Your task to perform on an android device: turn off sleep mode Image 0: 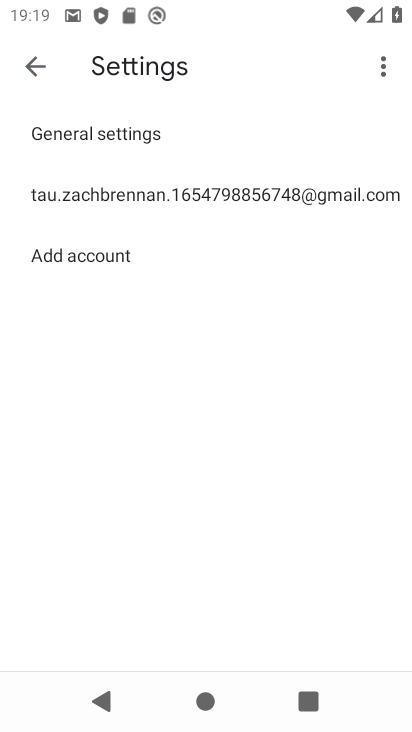
Step 0: press home button
Your task to perform on an android device: turn off sleep mode Image 1: 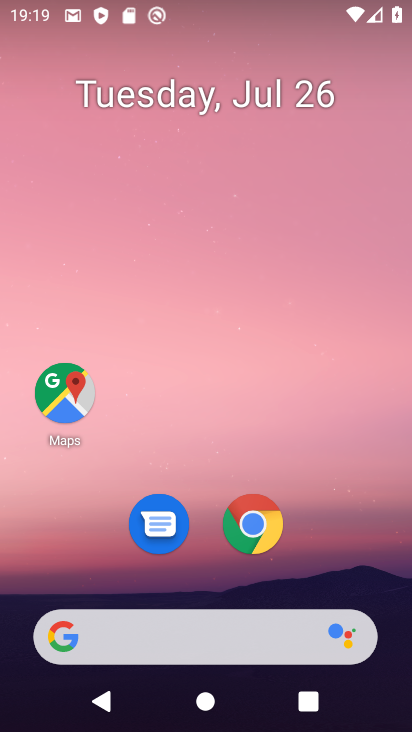
Step 1: drag from (287, 74) to (299, 42)
Your task to perform on an android device: turn off sleep mode Image 2: 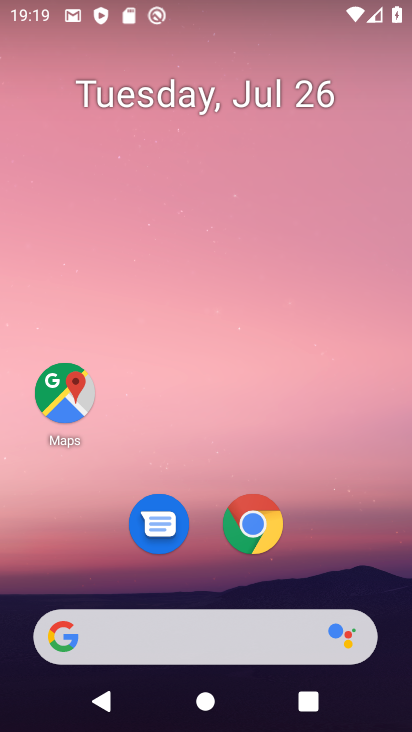
Step 2: drag from (211, 632) to (353, 27)
Your task to perform on an android device: turn off sleep mode Image 3: 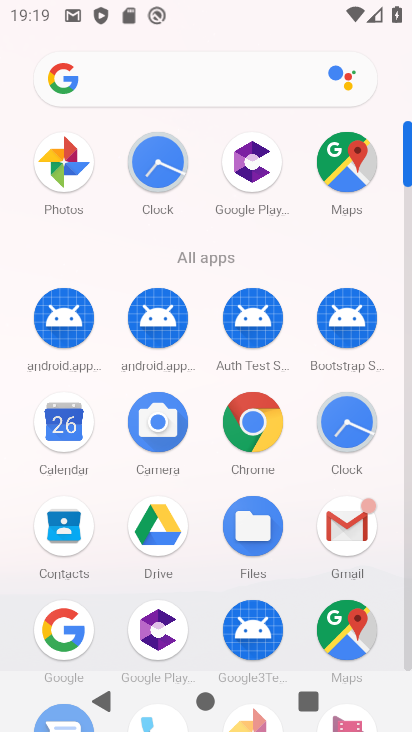
Step 3: drag from (194, 512) to (363, 110)
Your task to perform on an android device: turn off sleep mode Image 4: 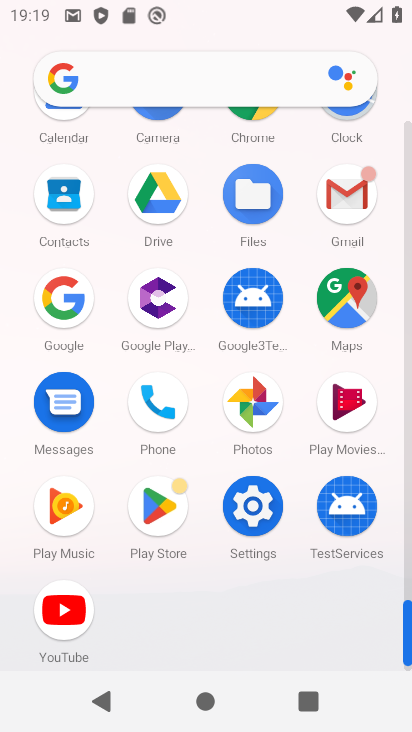
Step 4: click (249, 505)
Your task to perform on an android device: turn off sleep mode Image 5: 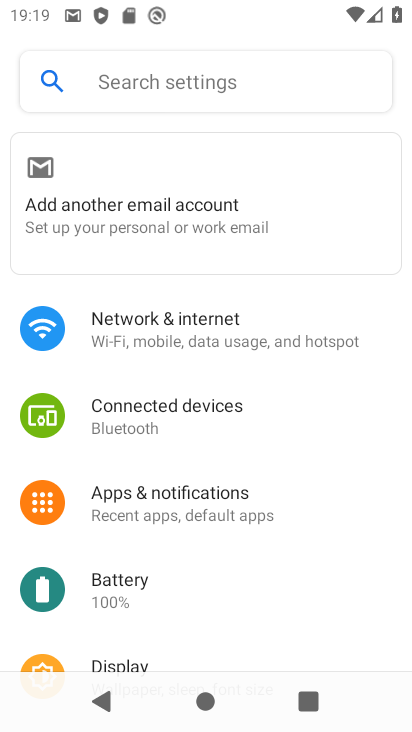
Step 5: drag from (242, 542) to (392, 106)
Your task to perform on an android device: turn off sleep mode Image 6: 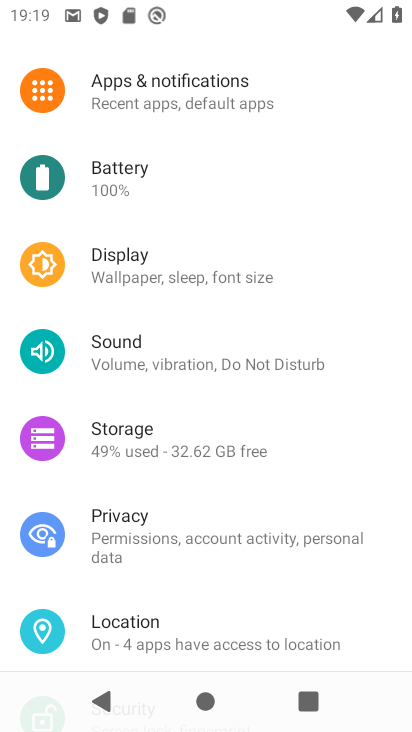
Step 6: click (183, 268)
Your task to perform on an android device: turn off sleep mode Image 7: 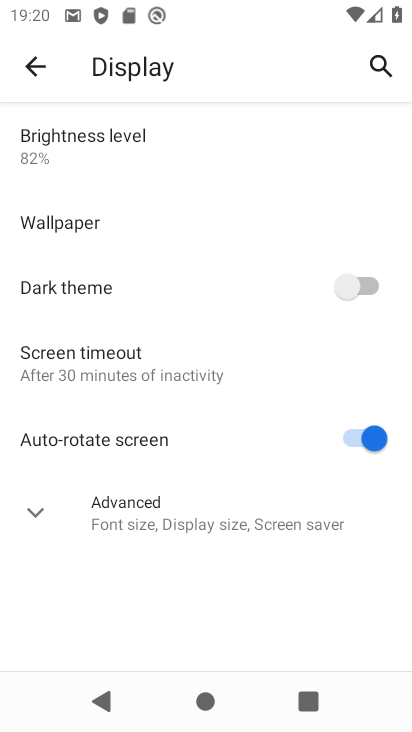
Step 7: task complete